Your task to perform on an android device: Open Youtube and go to the subscriptions tab Image 0: 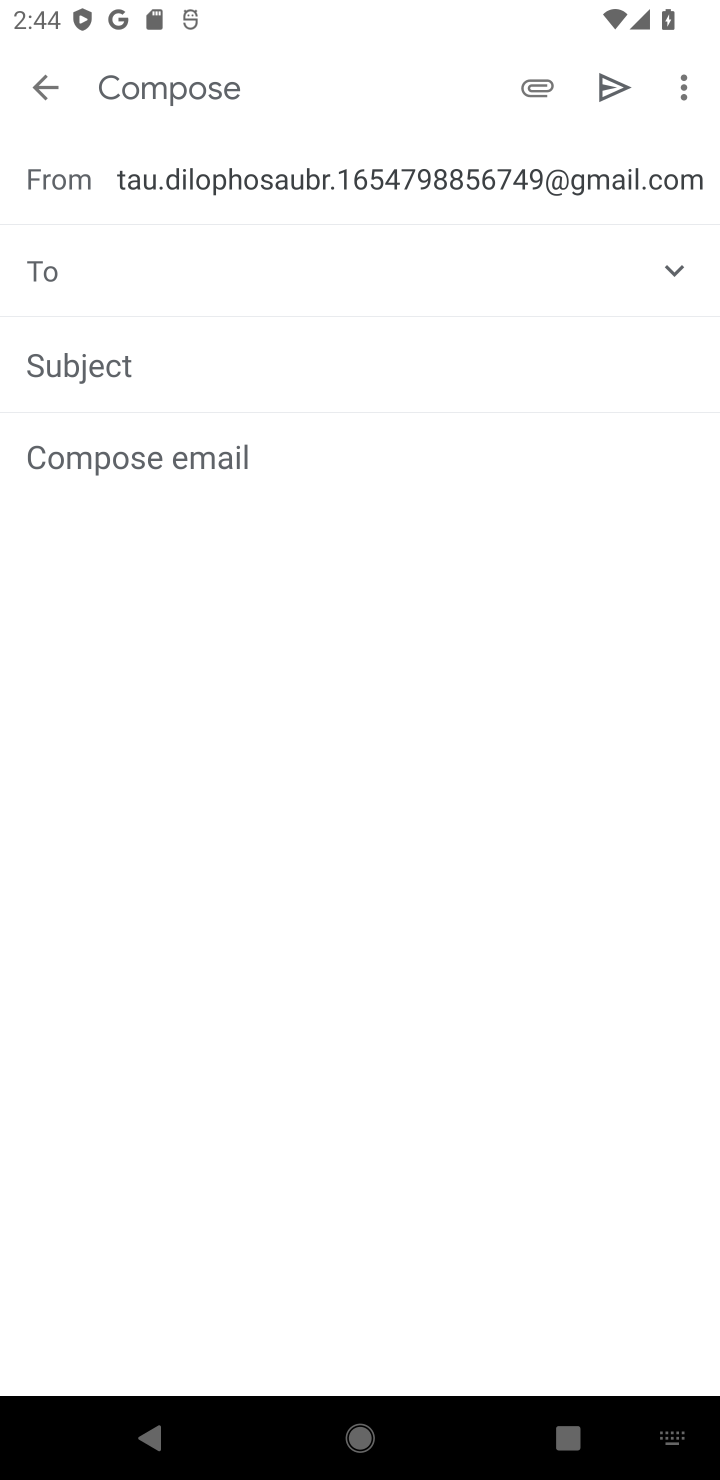
Step 0: press home button
Your task to perform on an android device: Open Youtube and go to the subscriptions tab Image 1: 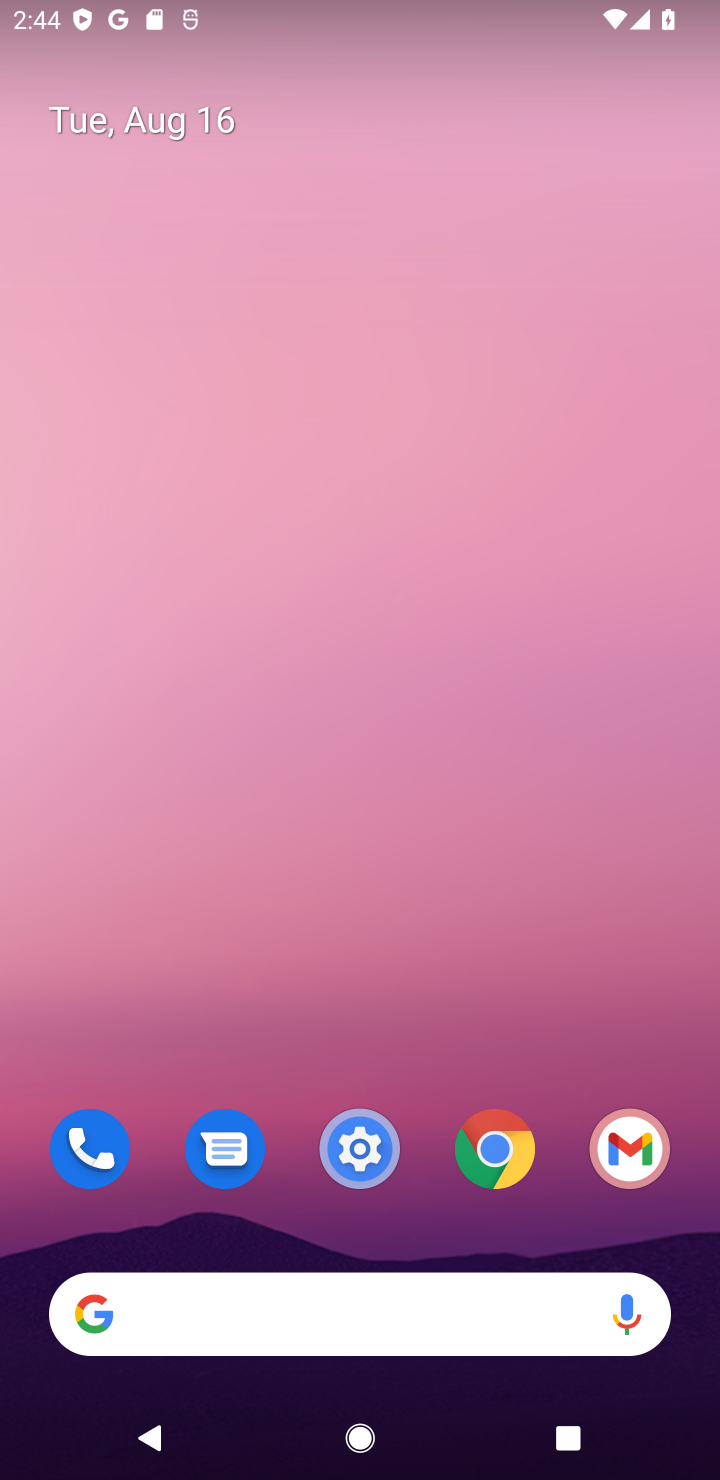
Step 1: drag from (463, 1008) to (486, 2)
Your task to perform on an android device: Open Youtube and go to the subscriptions tab Image 2: 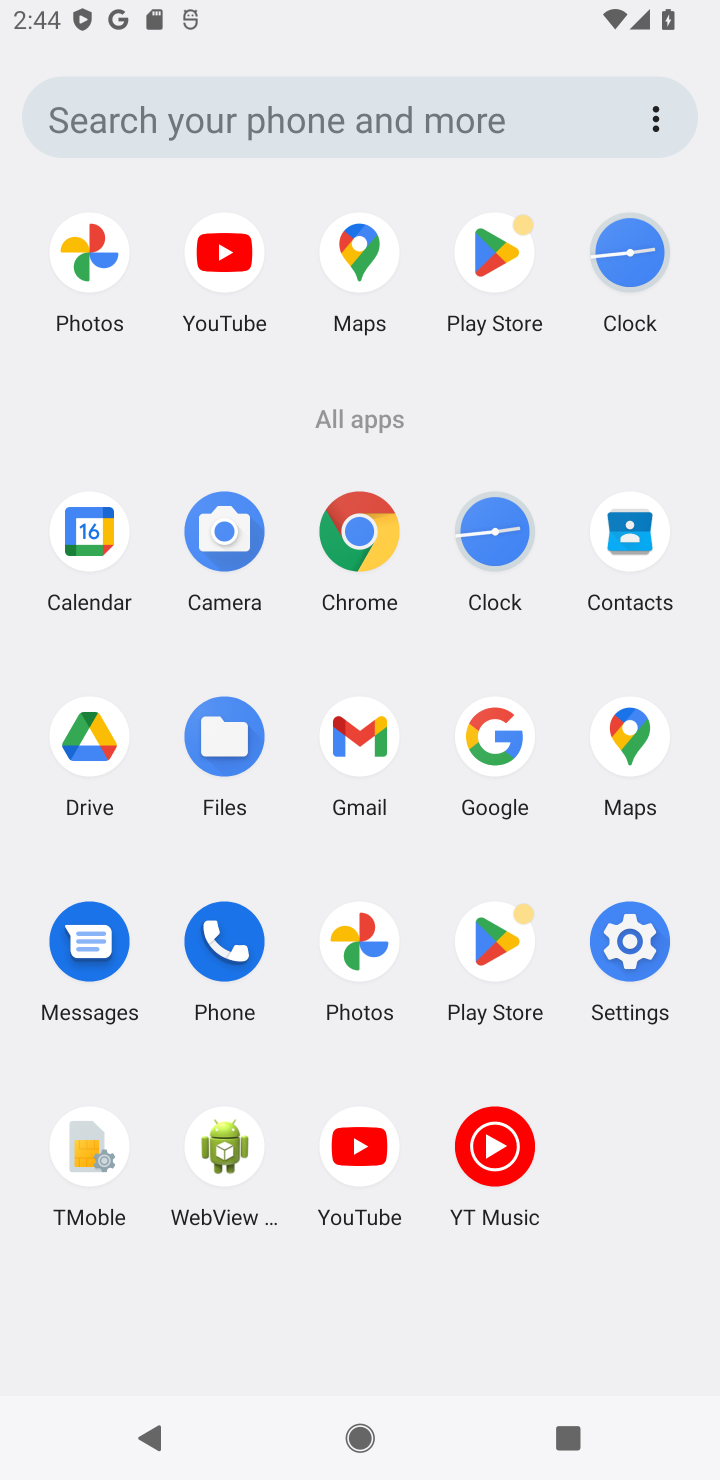
Step 2: click (358, 1141)
Your task to perform on an android device: Open Youtube and go to the subscriptions tab Image 3: 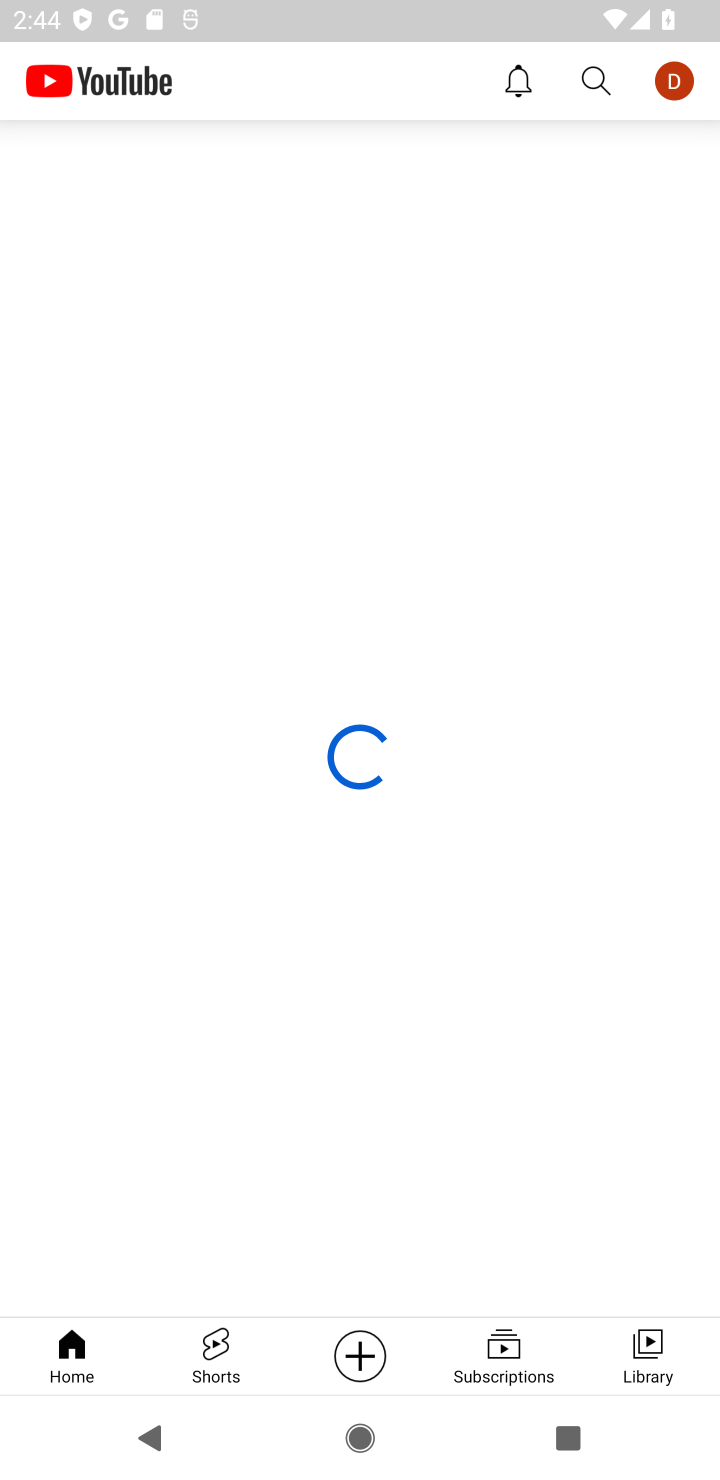
Step 3: click (453, 1352)
Your task to perform on an android device: Open Youtube and go to the subscriptions tab Image 4: 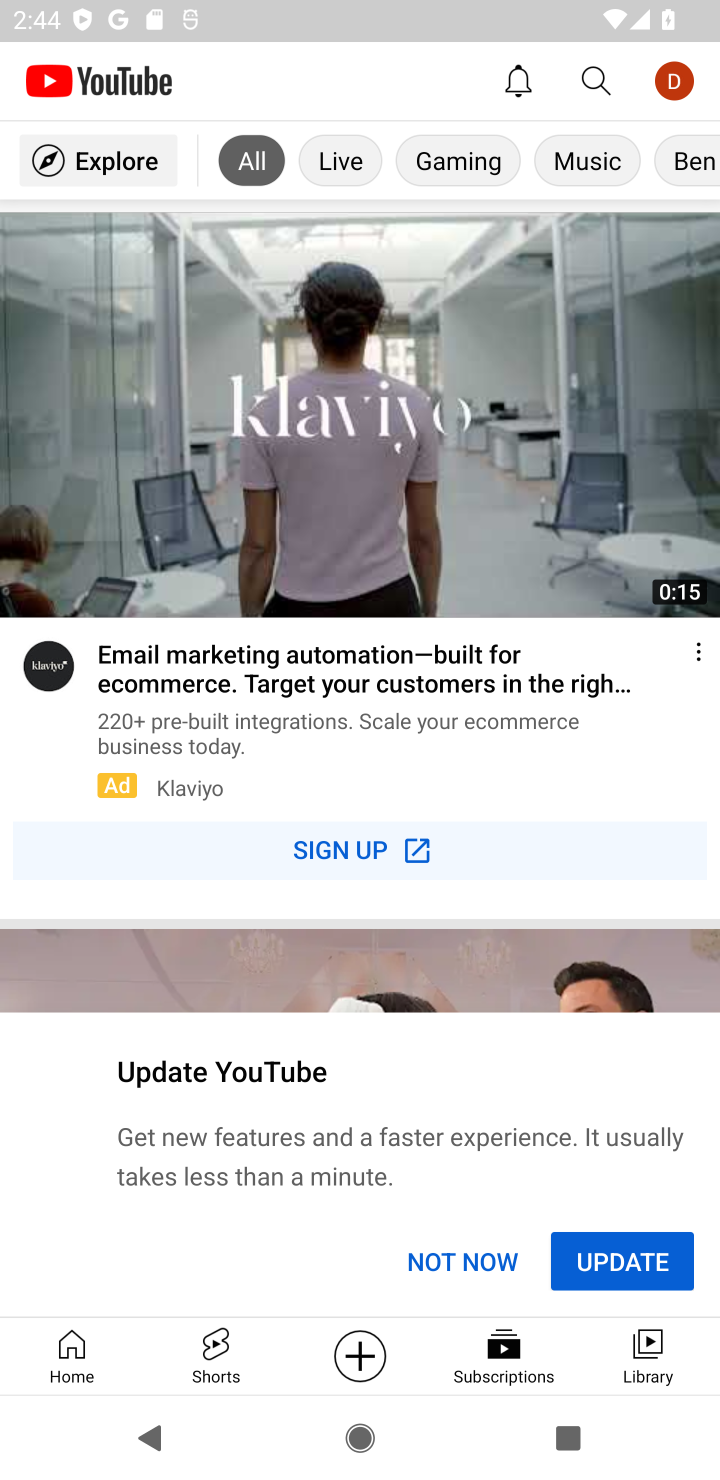
Step 4: click (497, 1360)
Your task to perform on an android device: Open Youtube and go to the subscriptions tab Image 5: 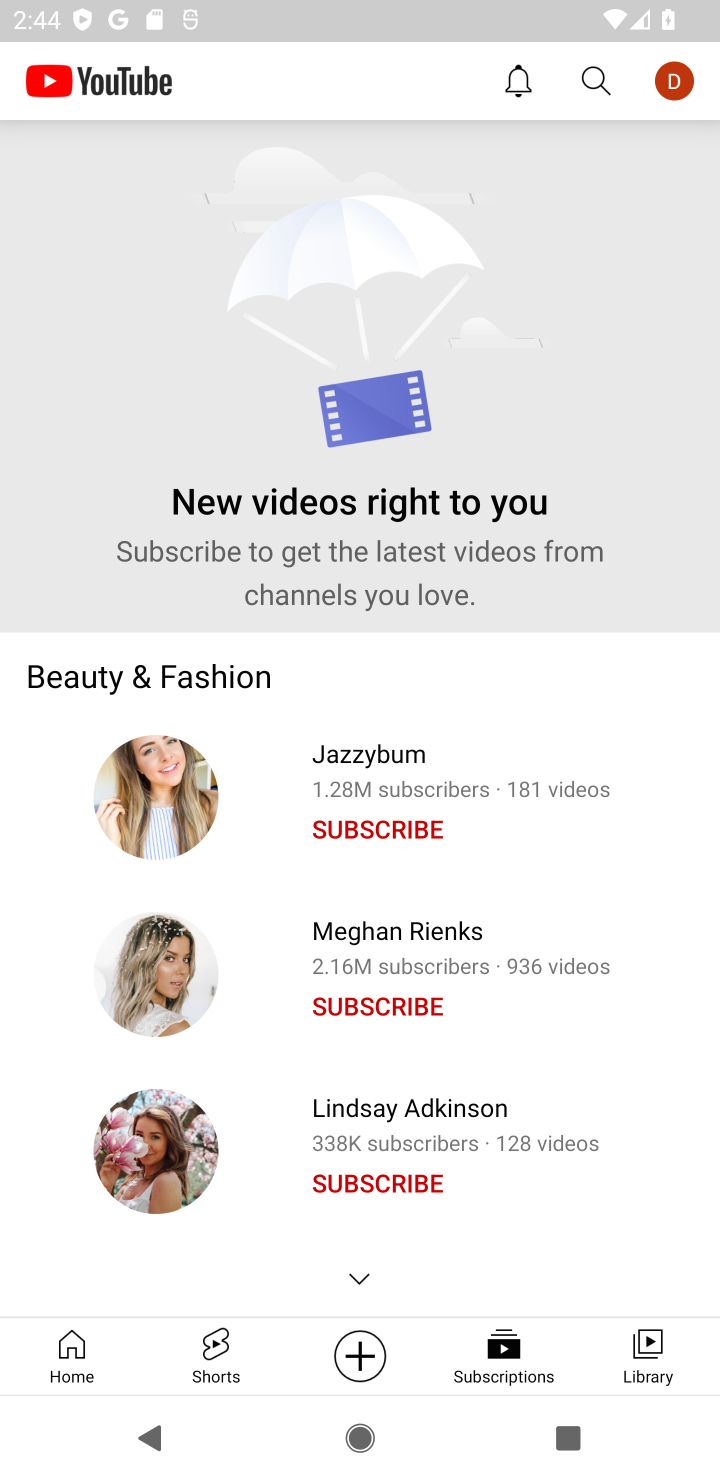
Step 5: task complete